Your task to perform on an android device: Open Yahoo.com Image 0: 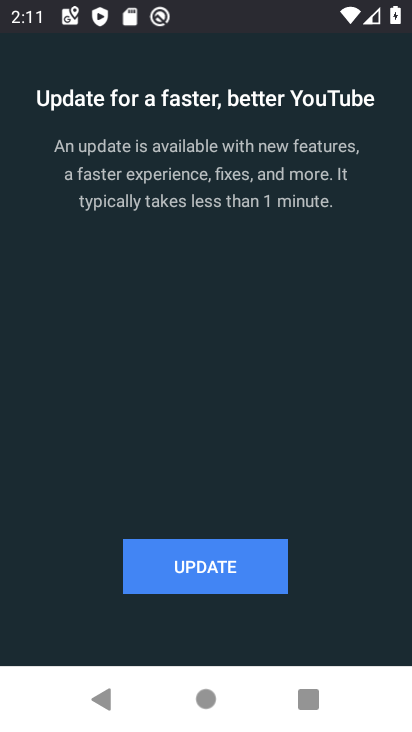
Step 0: press home button
Your task to perform on an android device: Open Yahoo.com Image 1: 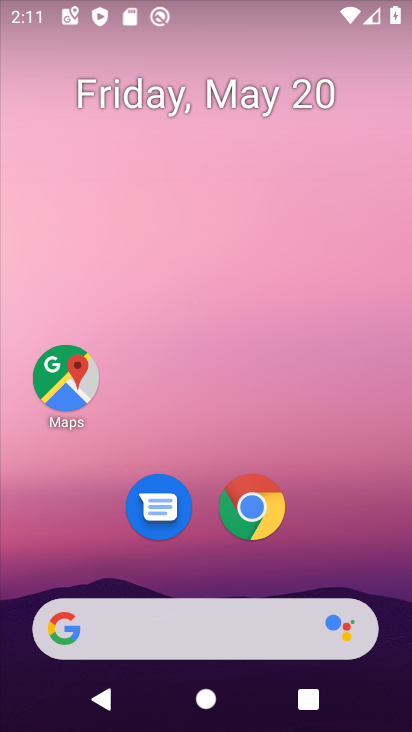
Step 1: click (255, 502)
Your task to perform on an android device: Open Yahoo.com Image 2: 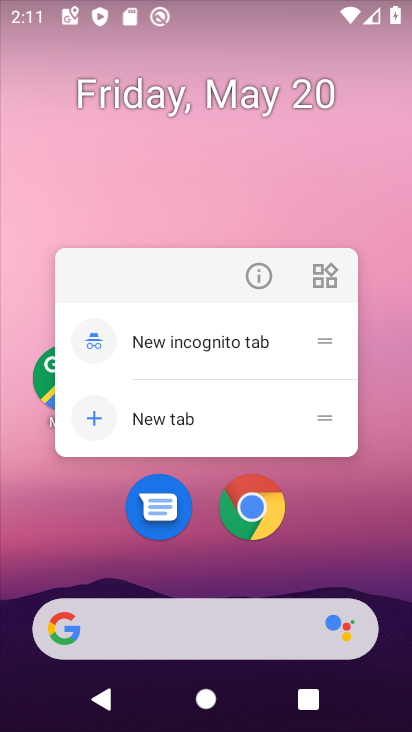
Step 2: click (255, 502)
Your task to perform on an android device: Open Yahoo.com Image 3: 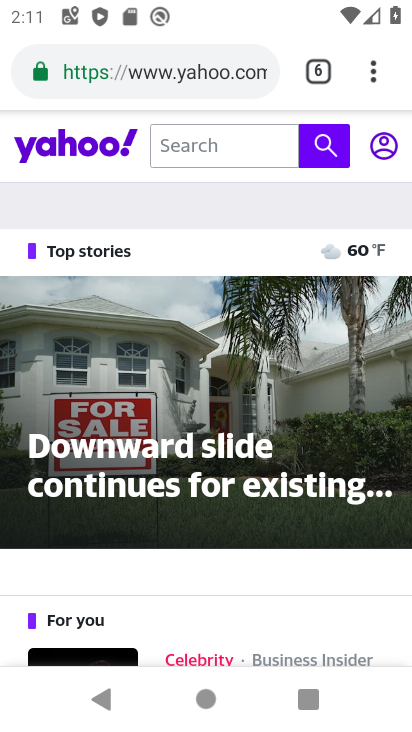
Step 3: task complete